Your task to perform on an android device: delete the emails in spam in the gmail app Image 0: 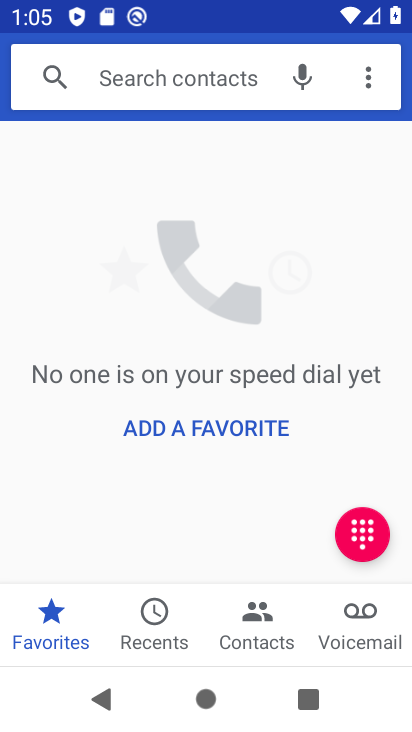
Step 0: press home button
Your task to perform on an android device: delete the emails in spam in the gmail app Image 1: 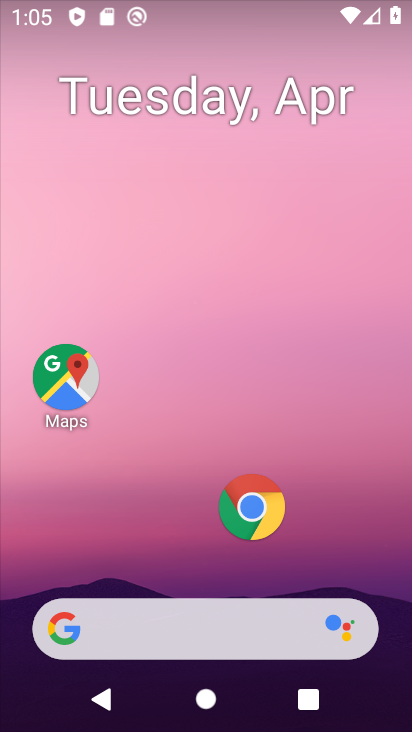
Step 1: drag from (195, 510) to (241, 39)
Your task to perform on an android device: delete the emails in spam in the gmail app Image 2: 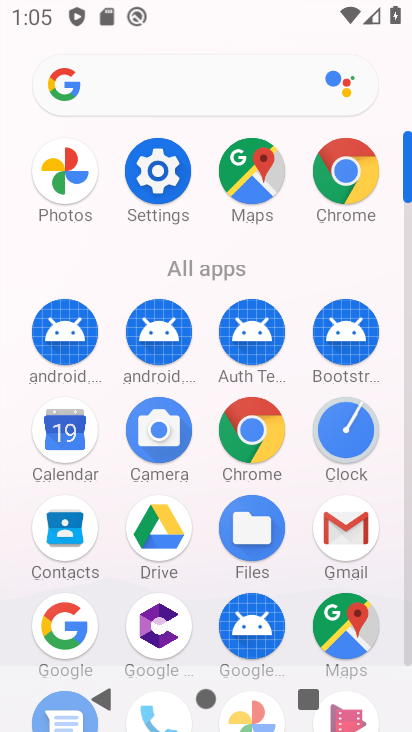
Step 2: click (339, 537)
Your task to perform on an android device: delete the emails in spam in the gmail app Image 3: 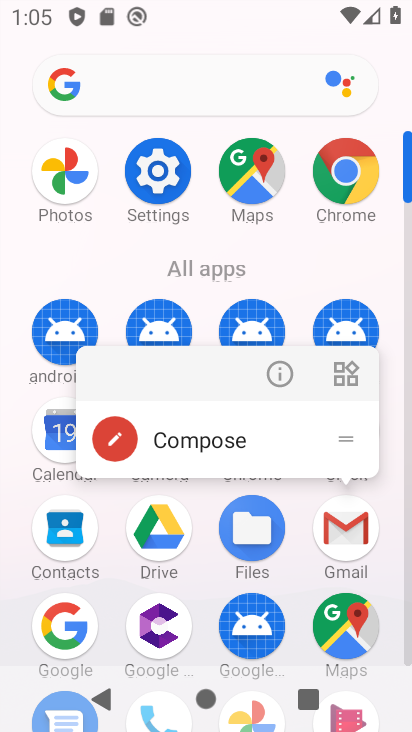
Step 3: click (339, 537)
Your task to perform on an android device: delete the emails in spam in the gmail app Image 4: 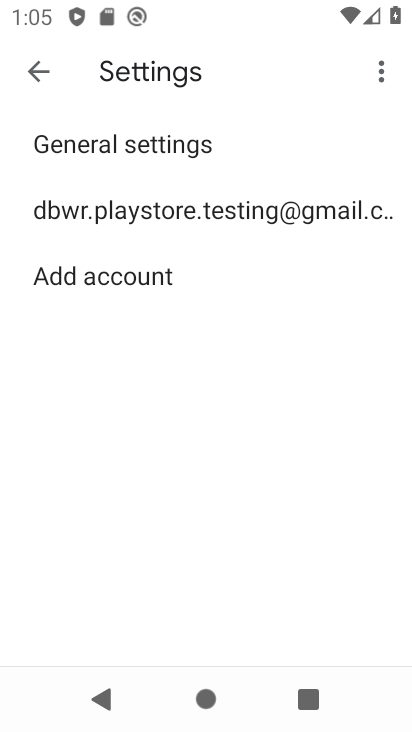
Step 4: click (38, 66)
Your task to perform on an android device: delete the emails in spam in the gmail app Image 5: 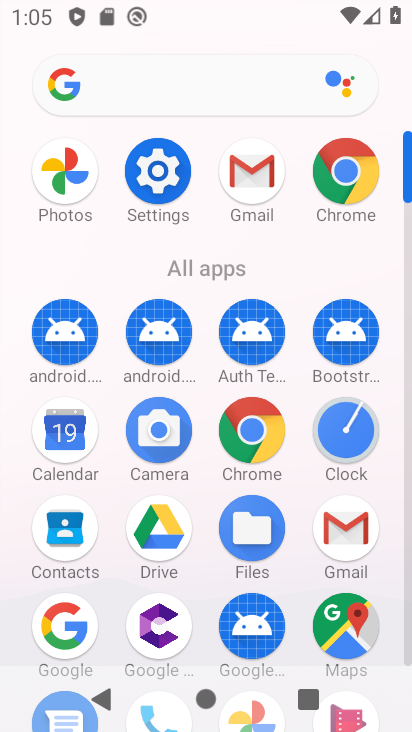
Step 5: click (249, 183)
Your task to perform on an android device: delete the emails in spam in the gmail app Image 6: 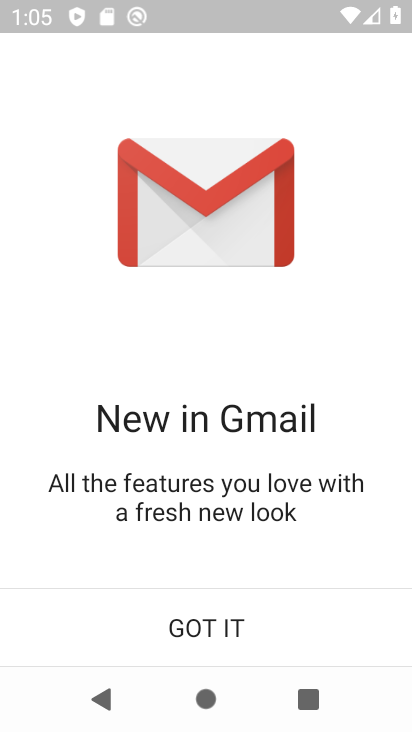
Step 6: click (203, 644)
Your task to perform on an android device: delete the emails in spam in the gmail app Image 7: 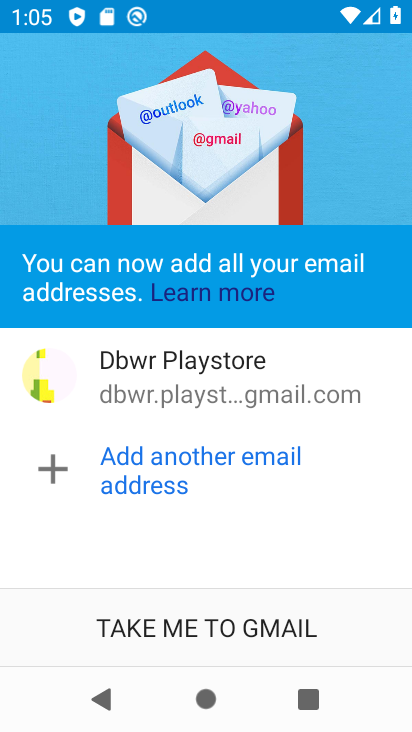
Step 7: click (203, 644)
Your task to perform on an android device: delete the emails in spam in the gmail app Image 8: 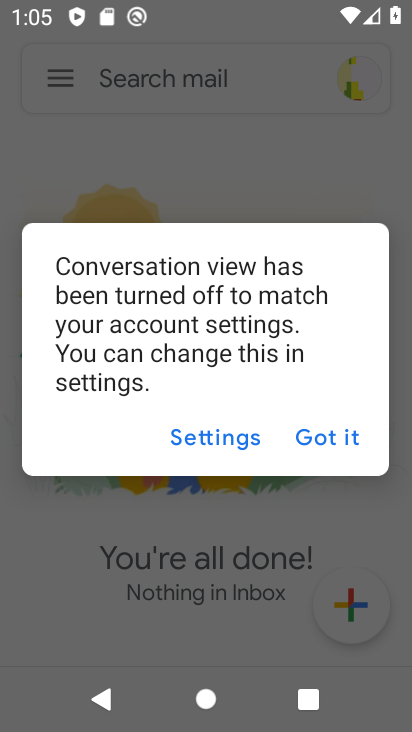
Step 8: click (323, 439)
Your task to perform on an android device: delete the emails in spam in the gmail app Image 9: 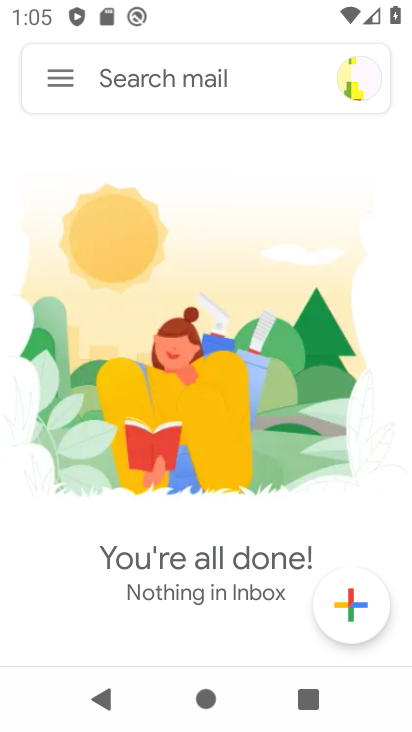
Step 9: click (59, 70)
Your task to perform on an android device: delete the emails in spam in the gmail app Image 10: 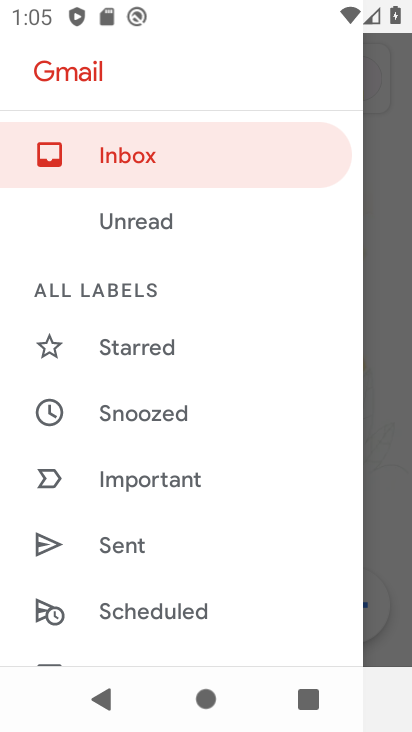
Step 10: drag from (136, 505) to (155, 255)
Your task to perform on an android device: delete the emails in spam in the gmail app Image 11: 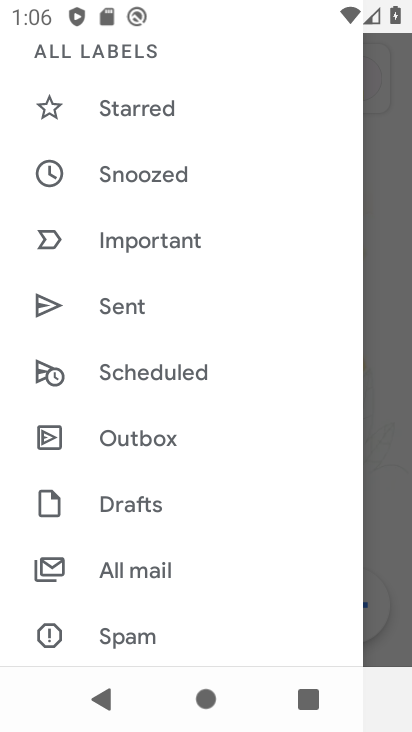
Step 11: click (132, 634)
Your task to perform on an android device: delete the emails in spam in the gmail app Image 12: 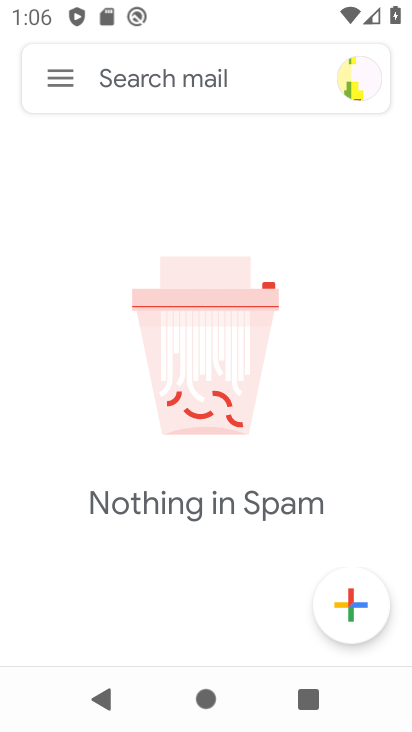
Step 12: task complete